Your task to perform on an android device: move a message to another label in the gmail app Image 0: 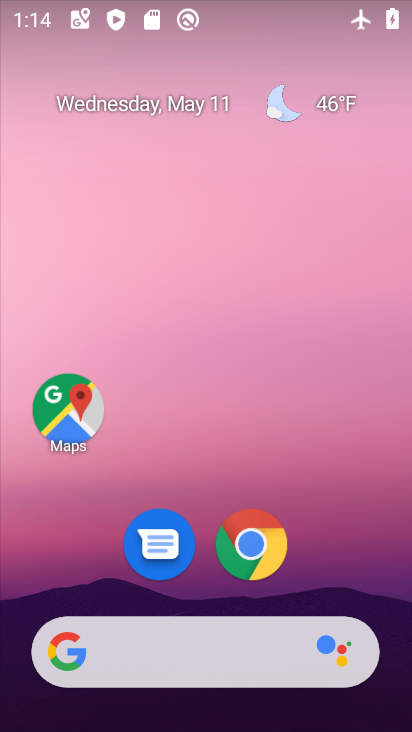
Step 0: drag from (389, 640) to (289, 39)
Your task to perform on an android device: move a message to another label in the gmail app Image 1: 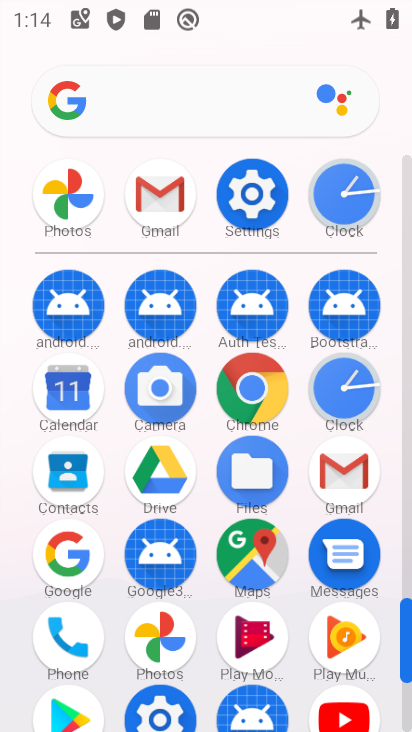
Step 1: click (405, 719)
Your task to perform on an android device: move a message to another label in the gmail app Image 2: 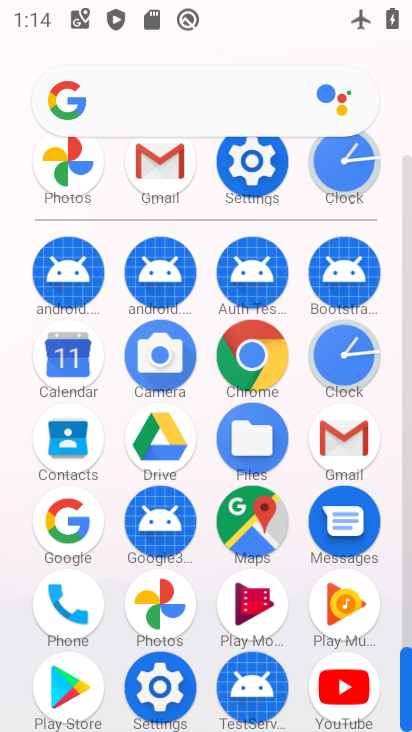
Step 2: click (343, 436)
Your task to perform on an android device: move a message to another label in the gmail app Image 3: 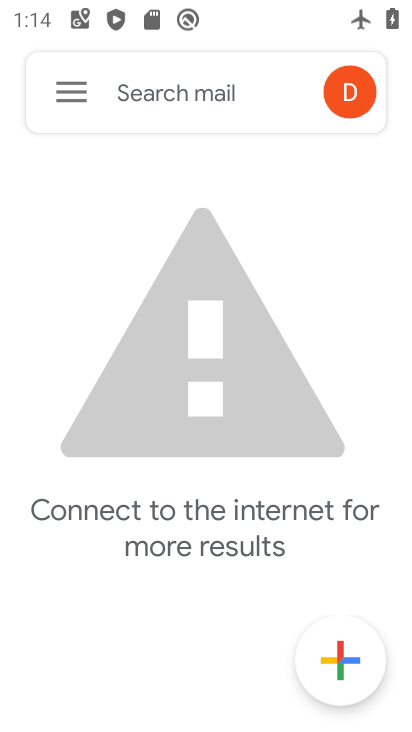
Step 3: click (72, 94)
Your task to perform on an android device: move a message to another label in the gmail app Image 4: 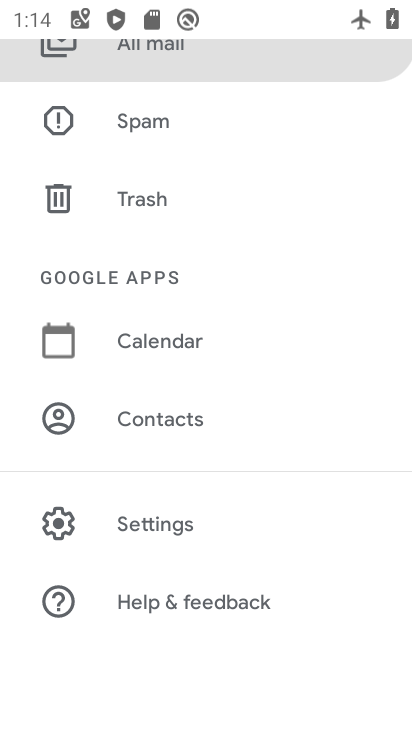
Step 4: click (162, 51)
Your task to perform on an android device: move a message to another label in the gmail app Image 5: 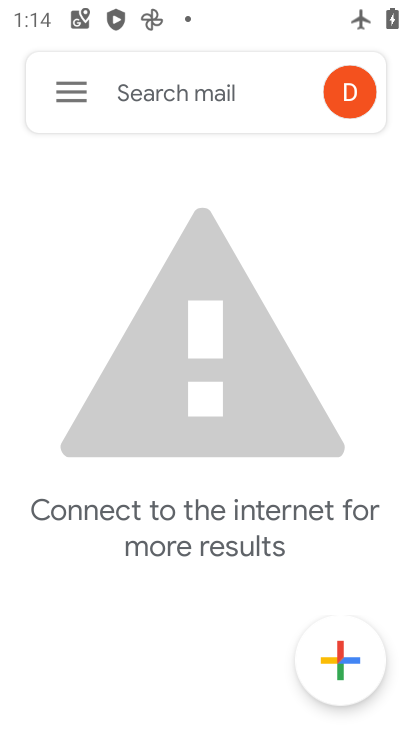
Step 5: task complete